Your task to perform on an android device: Turn off the flashlight Image 0: 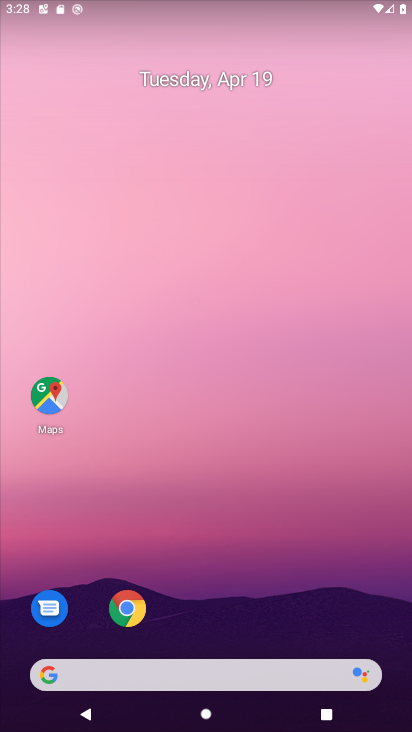
Step 0: drag from (209, 8) to (188, 424)
Your task to perform on an android device: Turn off the flashlight Image 1: 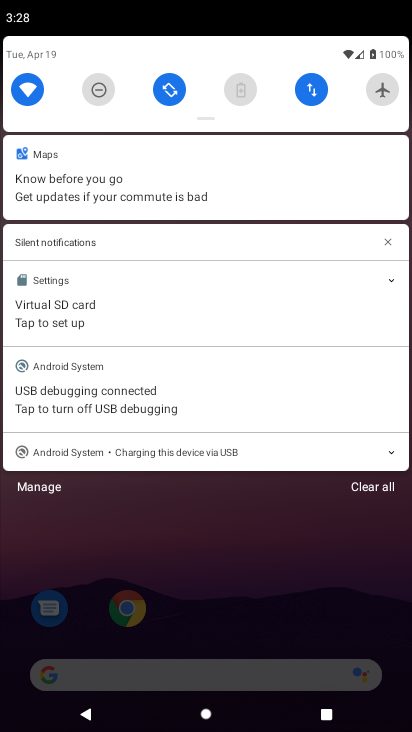
Step 1: task complete